Your task to perform on an android device: turn off location Image 0: 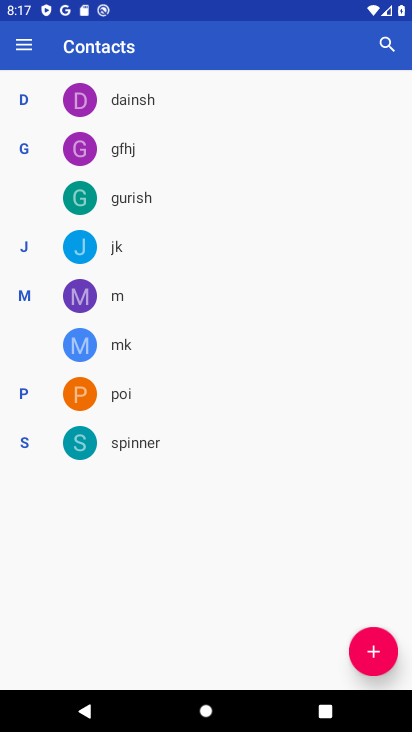
Step 0: press home button
Your task to perform on an android device: turn off location Image 1: 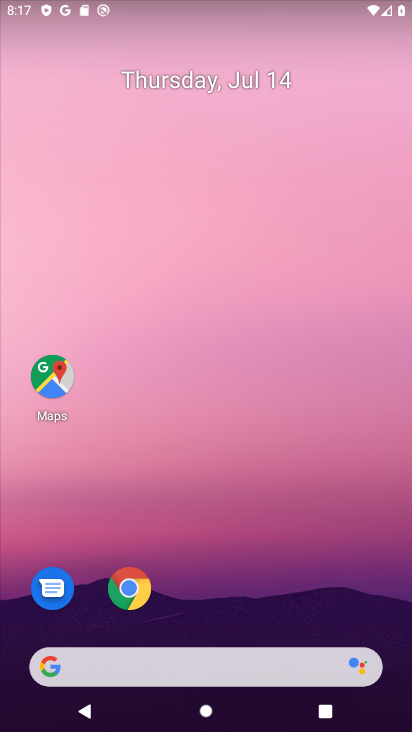
Step 1: drag from (260, 607) to (197, 193)
Your task to perform on an android device: turn off location Image 2: 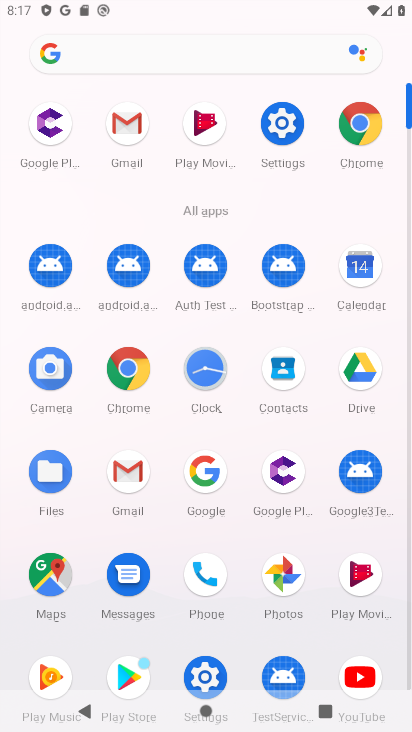
Step 2: click (299, 125)
Your task to perform on an android device: turn off location Image 3: 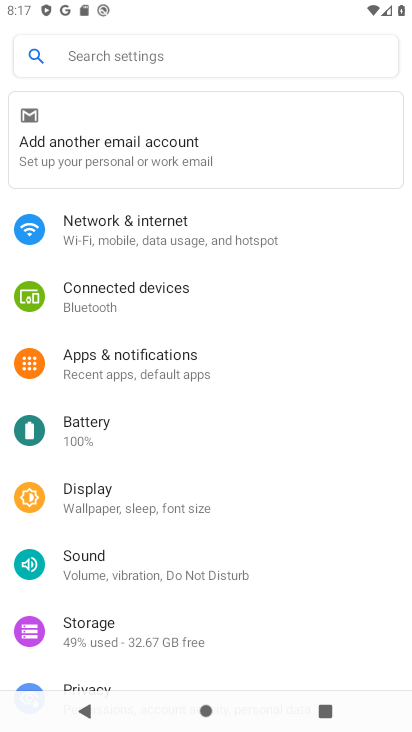
Step 3: drag from (192, 598) to (178, 172)
Your task to perform on an android device: turn off location Image 4: 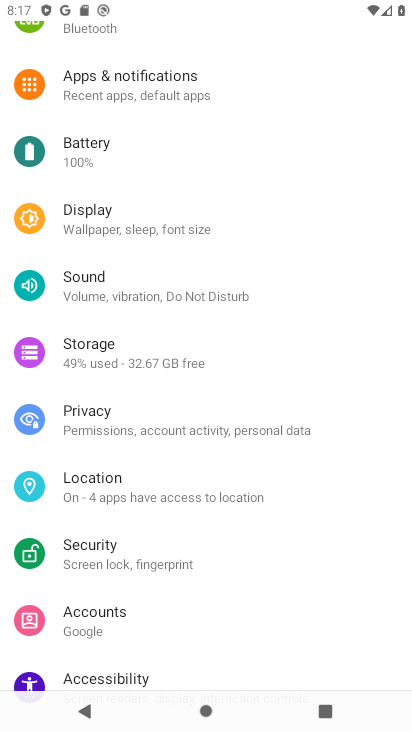
Step 4: click (184, 487)
Your task to perform on an android device: turn off location Image 5: 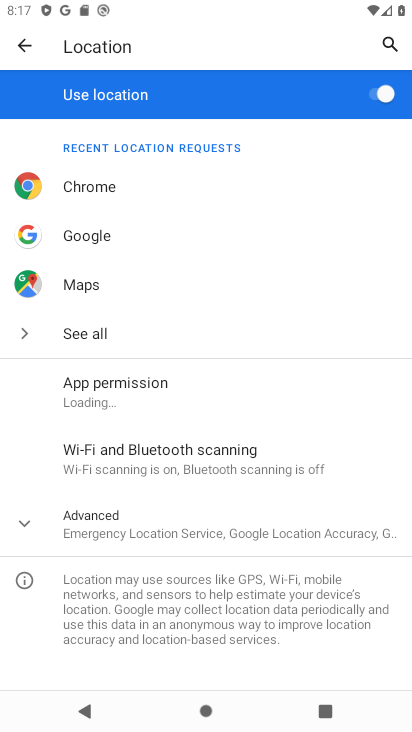
Step 5: click (382, 88)
Your task to perform on an android device: turn off location Image 6: 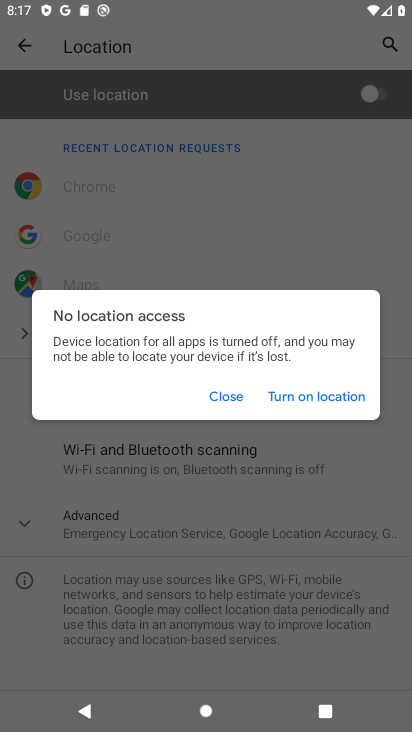
Step 6: task complete